Your task to perform on an android device: turn off translation in the chrome app Image 0: 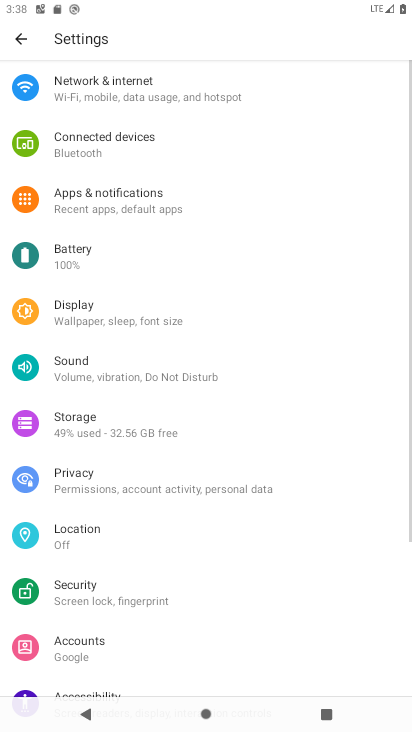
Step 0: press home button
Your task to perform on an android device: turn off translation in the chrome app Image 1: 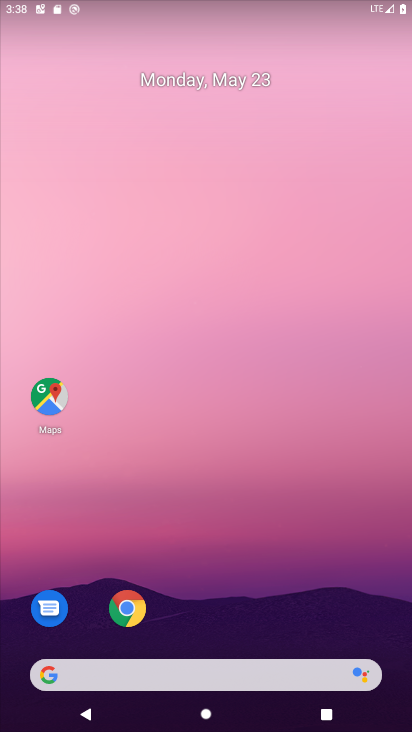
Step 1: click (138, 614)
Your task to perform on an android device: turn off translation in the chrome app Image 2: 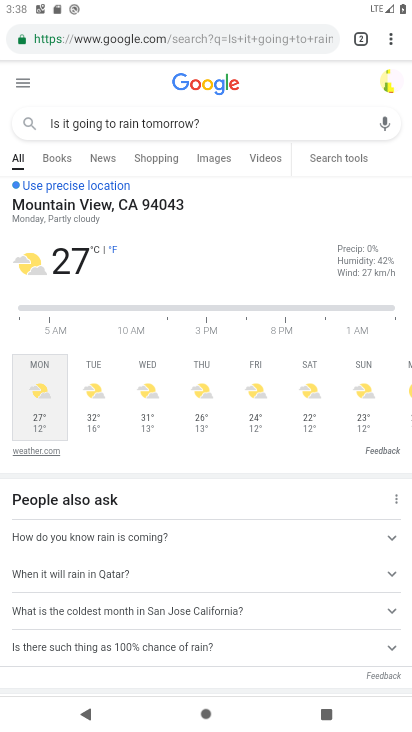
Step 2: click (383, 46)
Your task to perform on an android device: turn off translation in the chrome app Image 3: 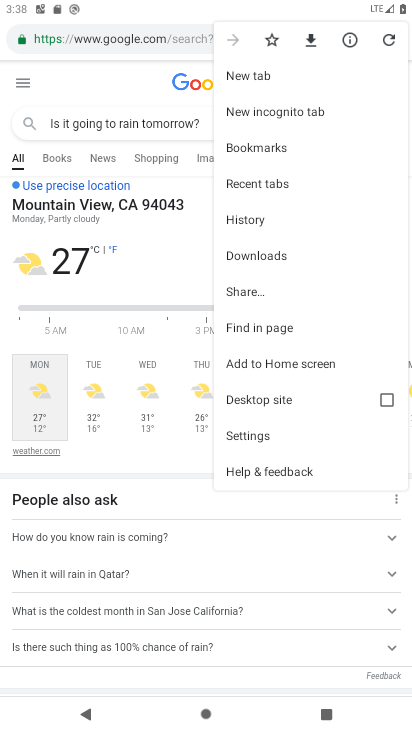
Step 3: click (297, 434)
Your task to perform on an android device: turn off translation in the chrome app Image 4: 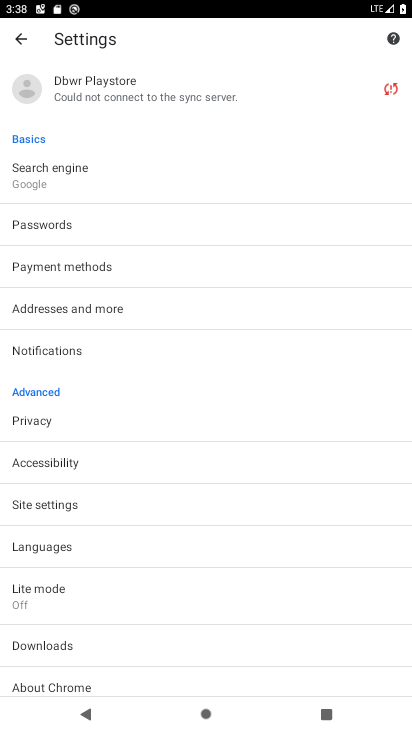
Step 4: click (74, 553)
Your task to perform on an android device: turn off translation in the chrome app Image 5: 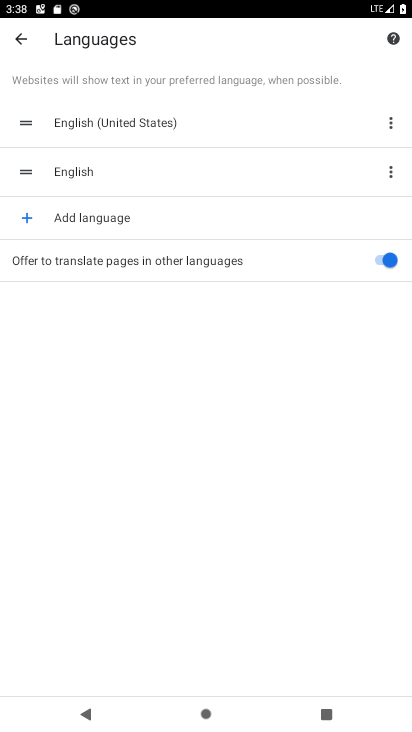
Step 5: click (384, 262)
Your task to perform on an android device: turn off translation in the chrome app Image 6: 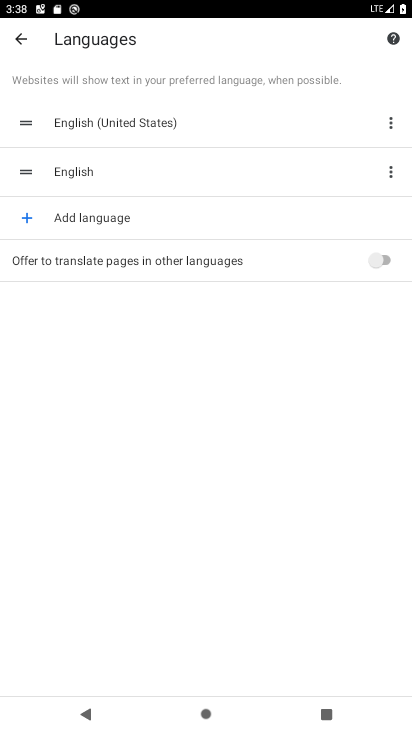
Step 6: task complete